Your task to perform on an android device: Open Youtube and go to the subscriptions tab Image 0: 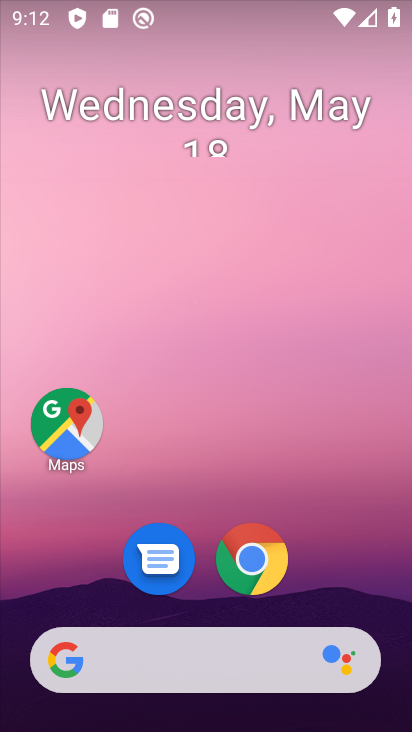
Step 0: drag from (313, 543) to (285, 0)
Your task to perform on an android device: Open Youtube and go to the subscriptions tab Image 1: 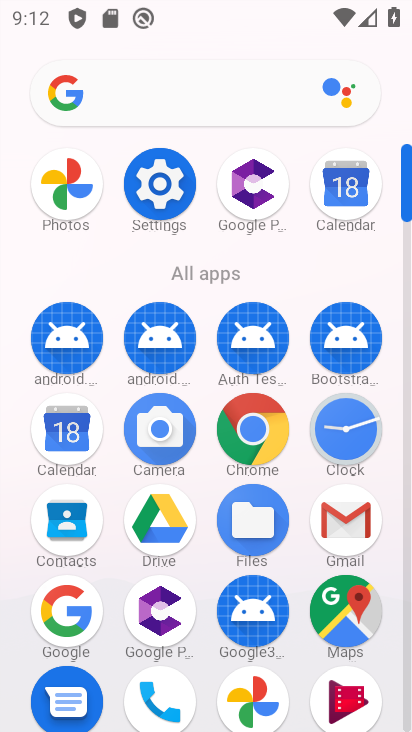
Step 1: drag from (7, 648) to (11, 257)
Your task to perform on an android device: Open Youtube and go to the subscriptions tab Image 2: 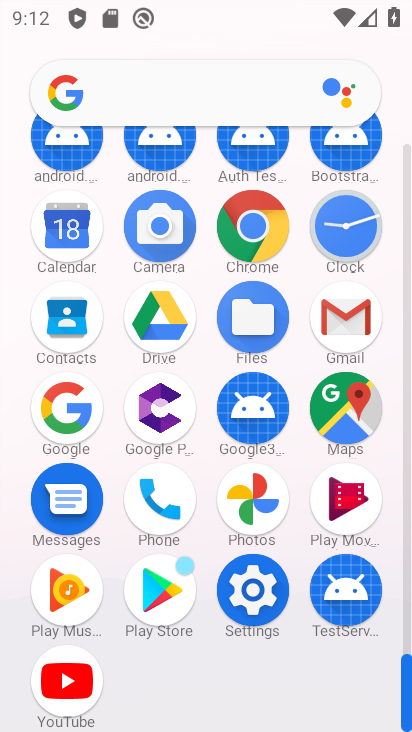
Step 2: click (65, 681)
Your task to perform on an android device: Open Youtube and go to the subscriptions tab Image 3: 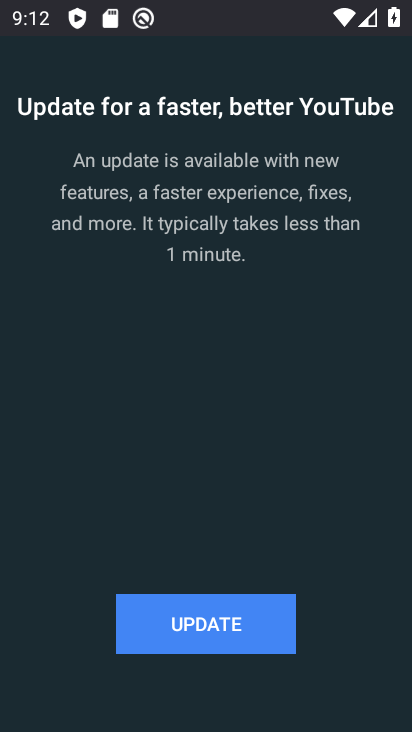
Step 3: click (181, 623)
Your task to perform on an android device: Open Youtube and go to the subscriptions tab Image 4: 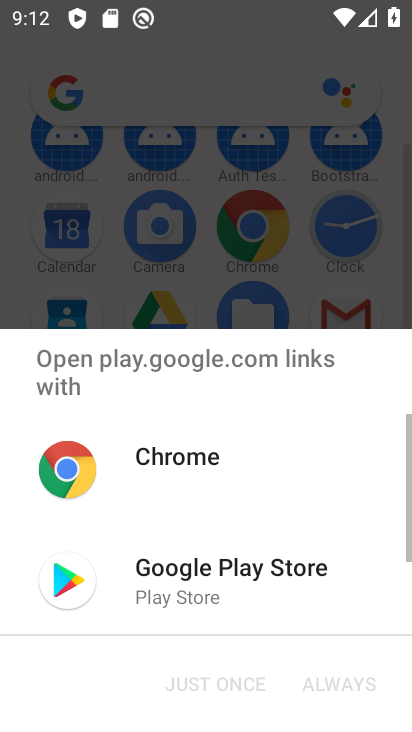
Step 4: click (177, 560)
Your task to perform on an android device: Open Youtube and go to the subscriptions tab Image 5: 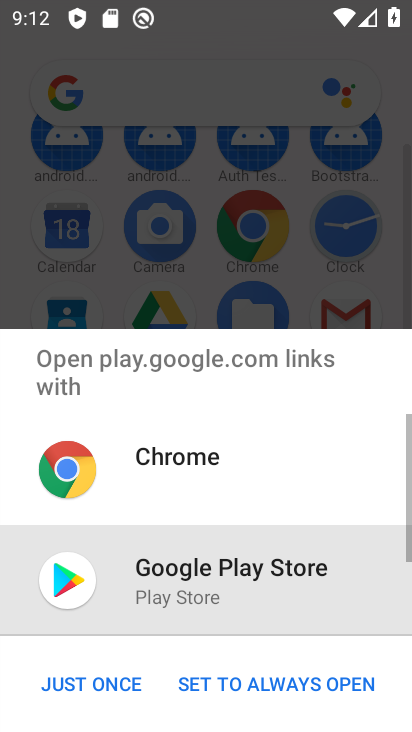
Step 5: click (57, 687)
Your task to perform on an android device: Open Youtube and go to the subscriptions tab Image 6: 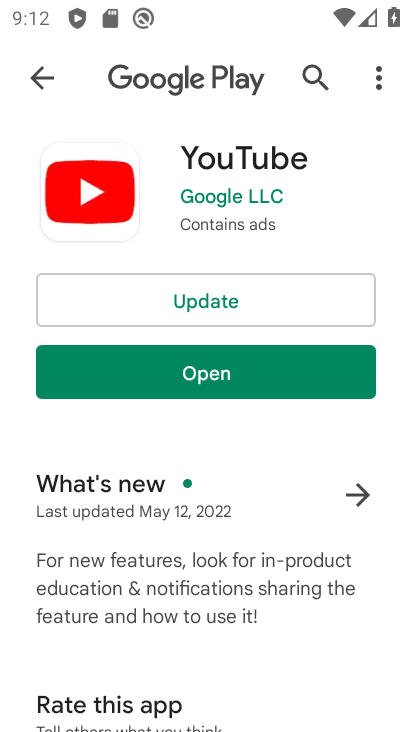
Step 6: click (221, 301)
Your task to perform on an android device: Open Youtube and go to the subscriptions tab Image 7: 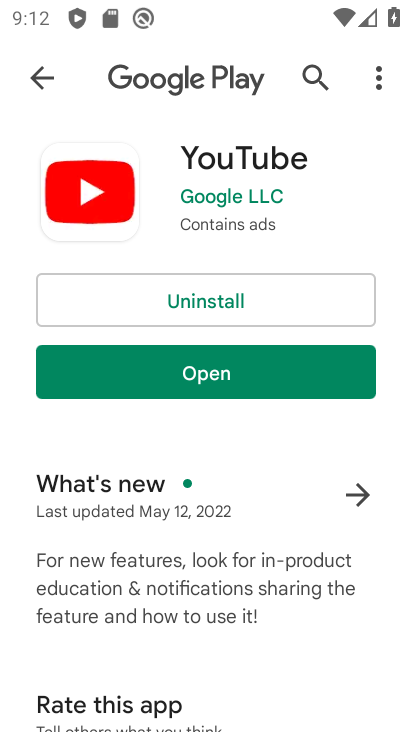
Step 7: click (217, 356)
Your task to perform on an android device: Open Youtube and go to the subscriptions tab Image 8: 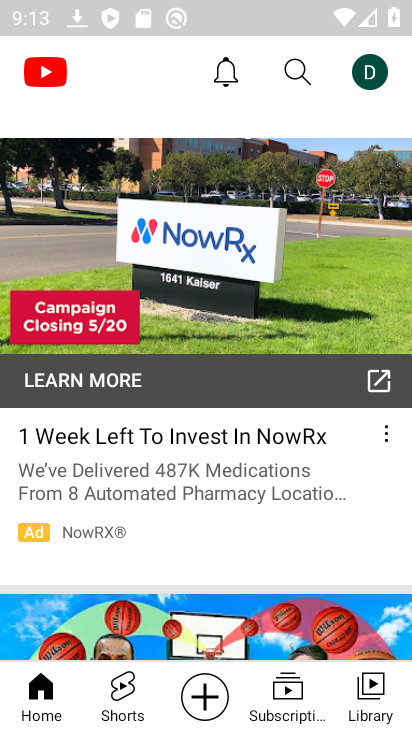
Step 8: click (291, 688)
Your task to perform on an android device: Open Youtube and go to the subscriptions tab Image 9: 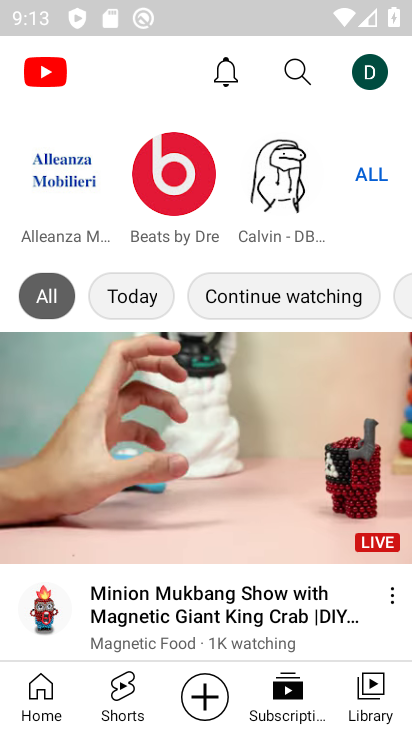
Step 9: task complete